Your task to perform on an android device: When is my next meeting? Image 0: 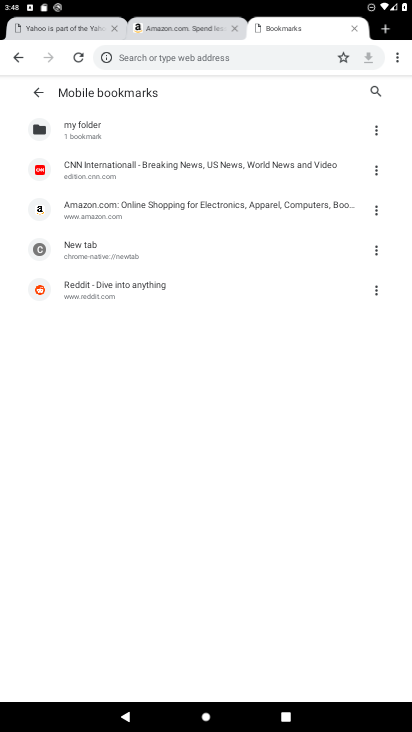
Step 0: press home button
Your task to perform on an android device: When is my next meeting? Image 1: 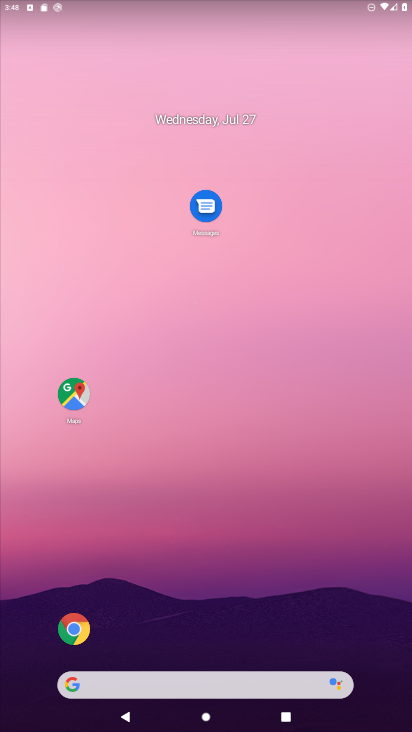
Step 1: click (183, 112)
Your task to perform on an android device: When is my next meeting? Image 2: 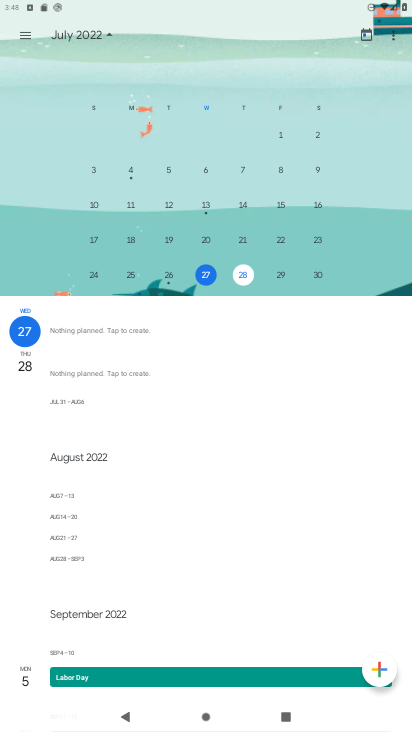
Step 2: task complete